Your task to perform on an android device: change alarm snooze length Image 0: 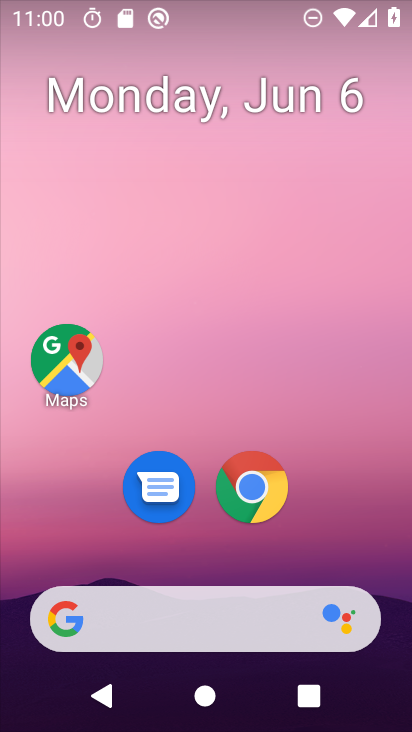
Step 0: drag from (387, 617) to (323, 105)
Your task to perform on an android device: change alarm snooze length Image 1: 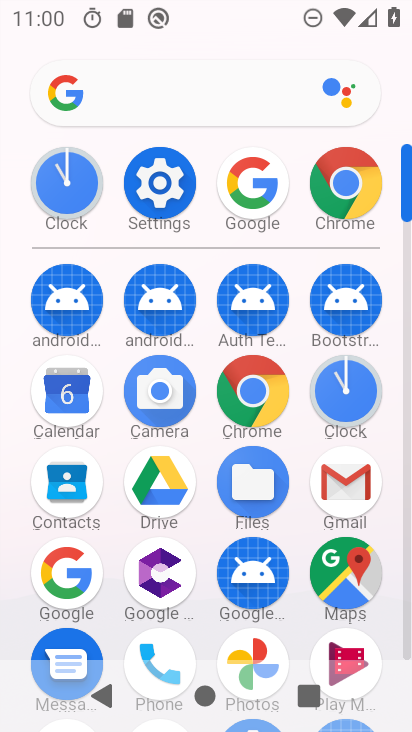
Step 1: click (334, 393)
Your task to perform on an android device: change alarm snooze length Image 2: 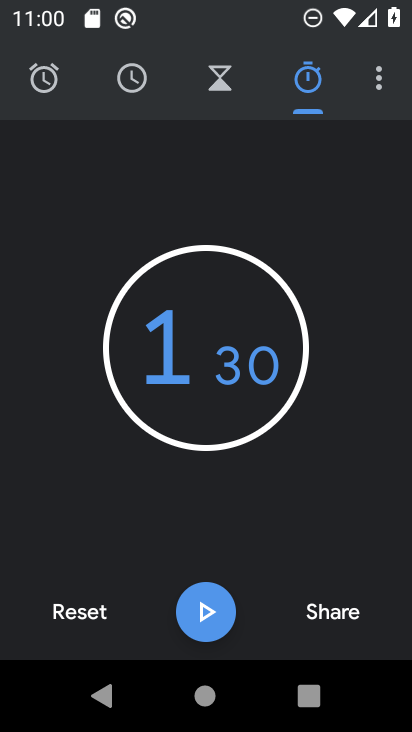
Step 2: click (383, 76)
Your task to perform on an android device: change alarm snooze length Image 3: 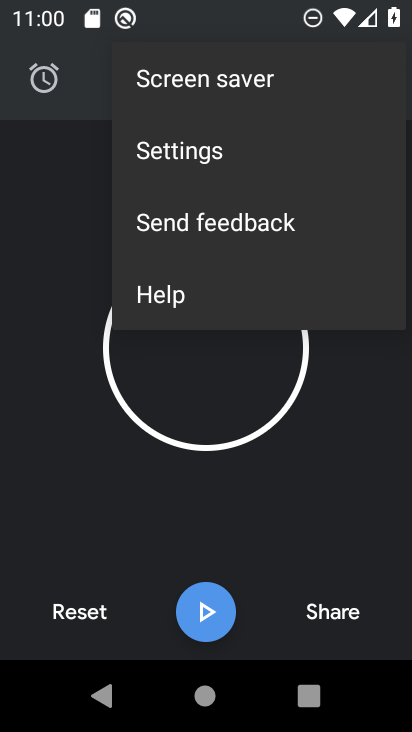
Step 3: click (194, 157)
Your task to perform on an android device: change alarm snooze length Image 4: 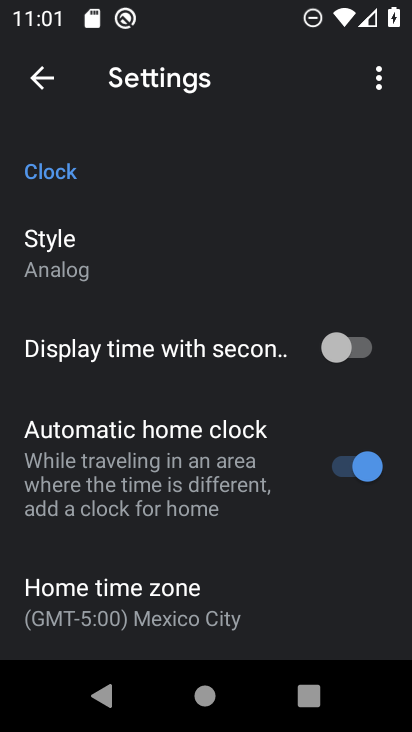
Step 4: drag from (105, 615) to (162, 113)
Your task to perform on an android device: change alarm snooze length Image 5: 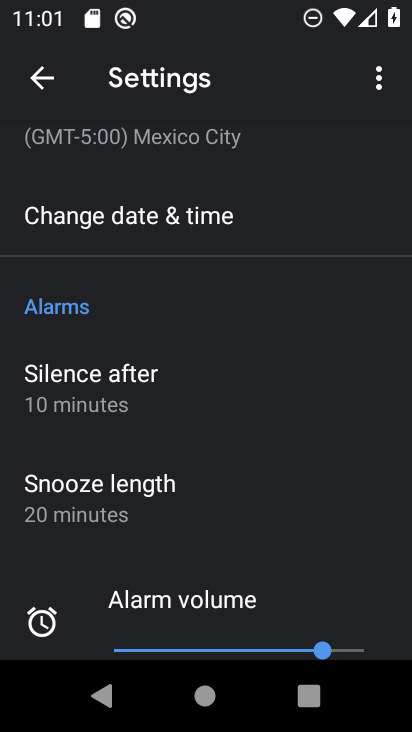
Step 5: click (122, 499)
Your task to perform on an android device: change alarm snooze length Image 6: 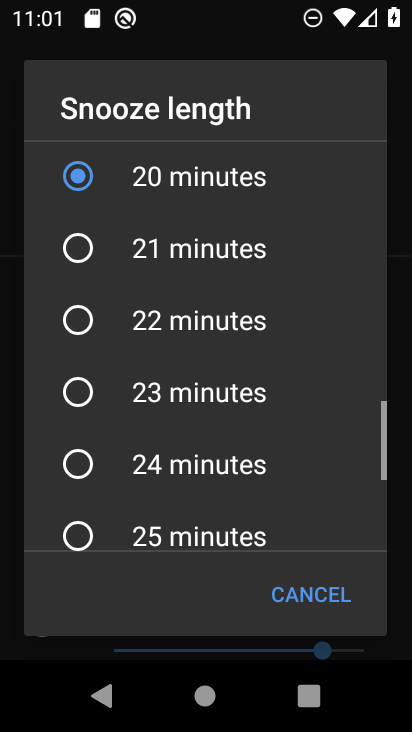
Step 6: click (74, 540)
Your task to perform on an android device: change alarm snooze length Image 7: 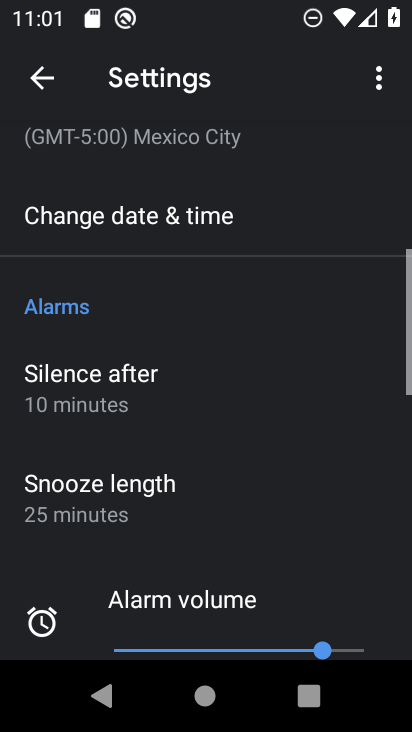
Step 7: task complete